Your task to perform on an android device: Is it going to rain tomorrow? Image 0: 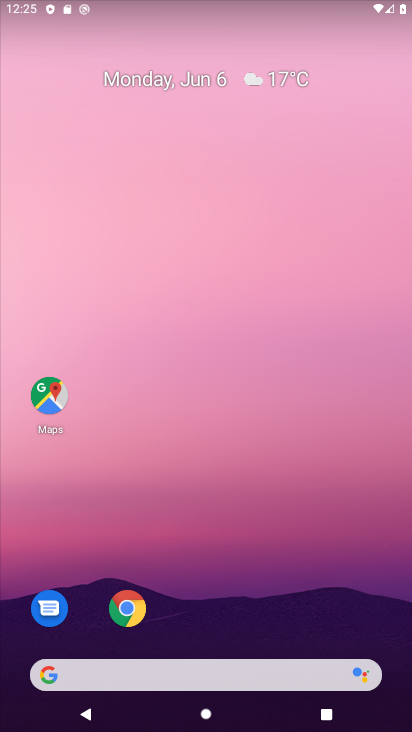
Step 0: drag from (176, 662) to (187, 289)
Your task to perform on an android device: Is it going to rain tomorrow? Image 1: 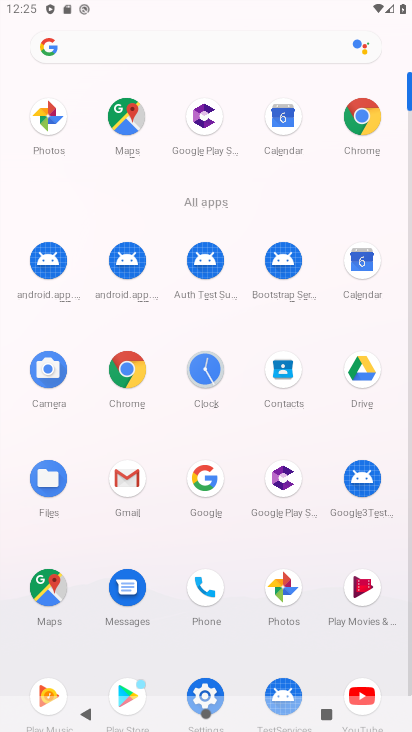
Step 1: click (212, 476)
Your task to perform on an android device: Is it going to rain tomorrow? Image 2: 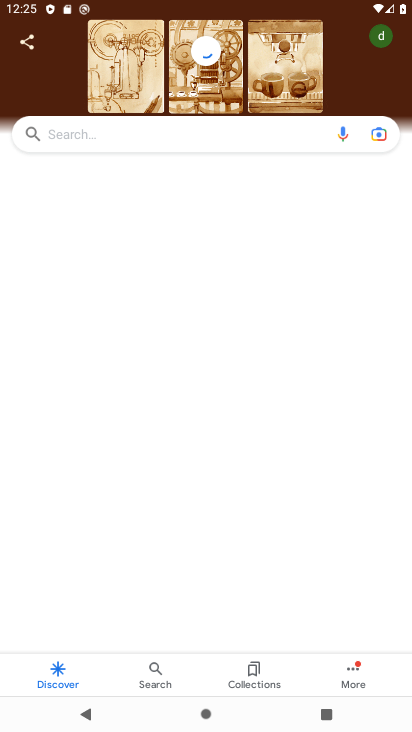
Step 2: click (136, 144)
Your task to perform on an android device: Is it going to rain tomorrow? Image 3: 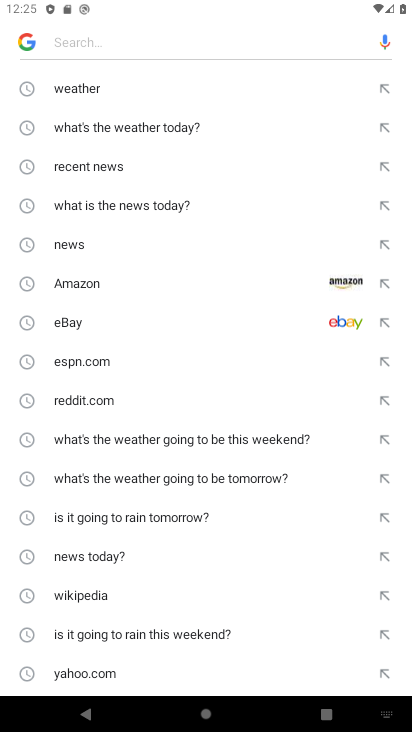
Step 3: click (99, 517)
Your task to perform on an android device: Is it going to rain tomorrow? Image 4: 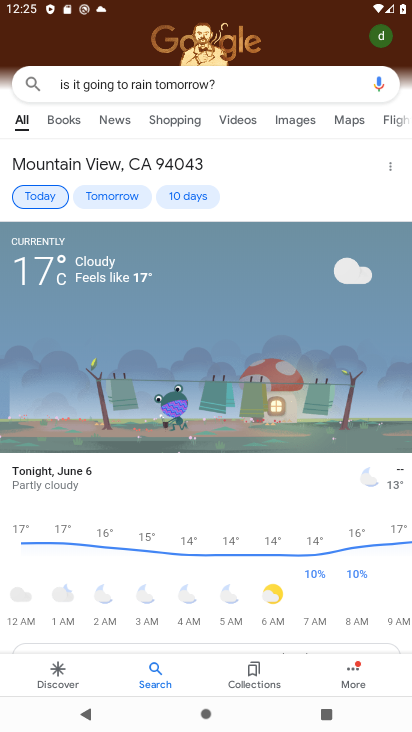
Step 4: task complete